Your task to perform on an android device: Open display settings Image 0: 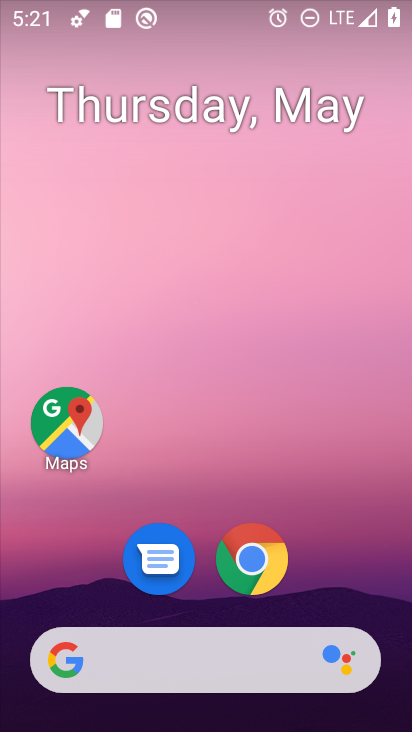
Step 0: drag from (359, 498) to (266, 8)
Your task to perform on an android device: Open display settings Image 1: 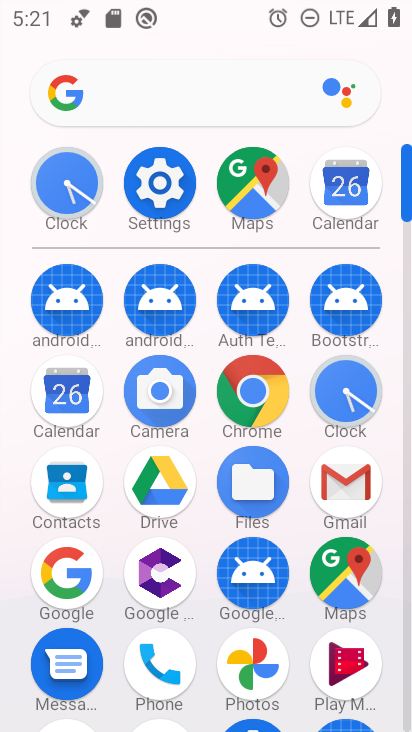
Step 1: click (154, 194)
Your task to perform on an android device: Open display settings Image 2: 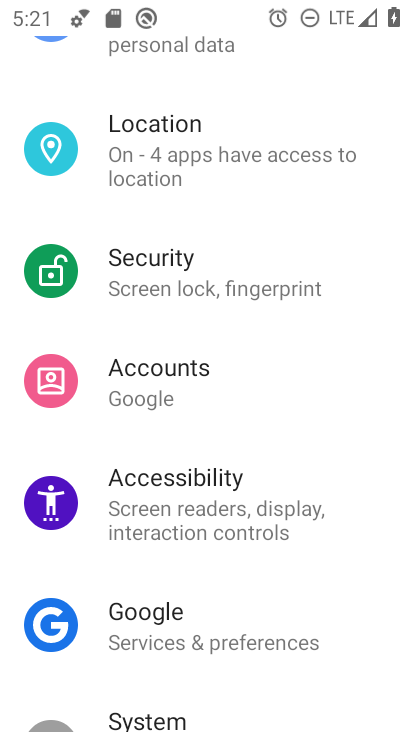
Step 2: drag from (218, 179) to (225, 708)
Your task to perform on an android device: Open display settings Image 3: 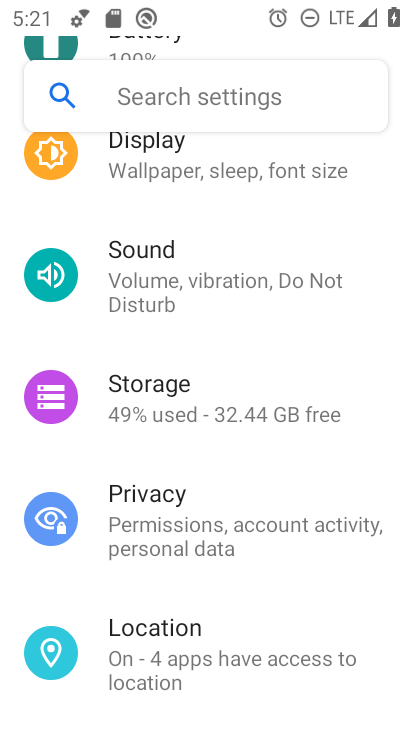
Step 3: click (179, 172)
Your task to perform on an android device: Open display settings Image 4: 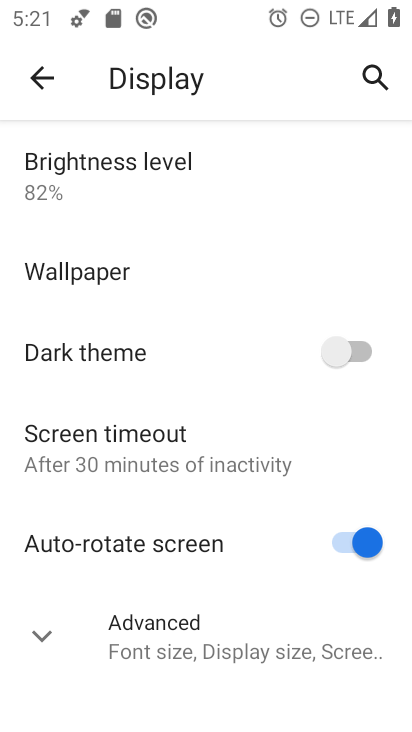
Step 4: task complete